Your task to perform on an android device: Go to Maps Image 0: 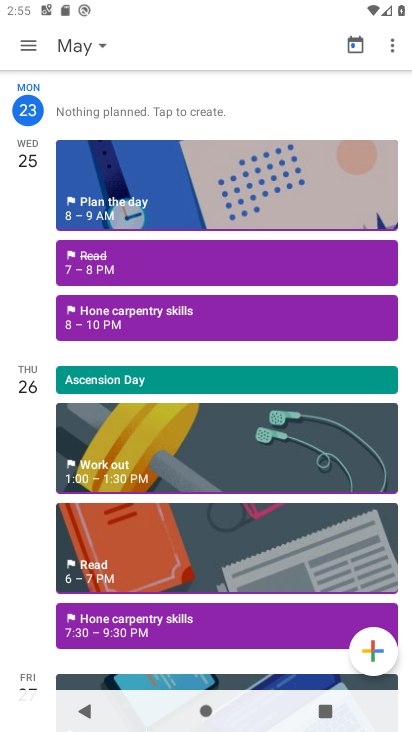
Step 0: press home button
Your task to perform on an android device: Go to Maps Image 1: 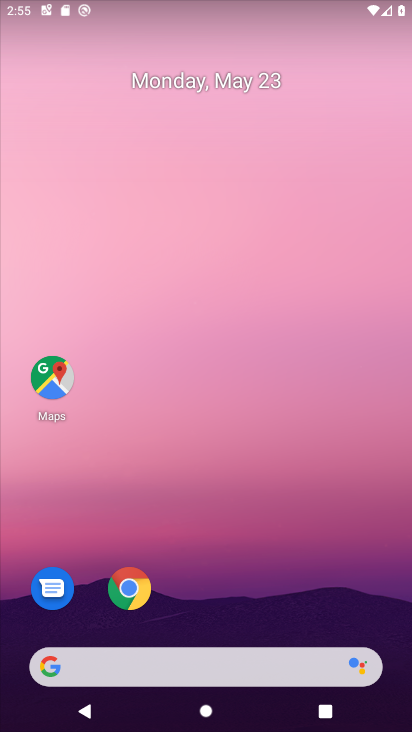
Step 1: drag from (220, 612) to (200, 0)
Your task to perform on an android device: Go to Maps Image 2: 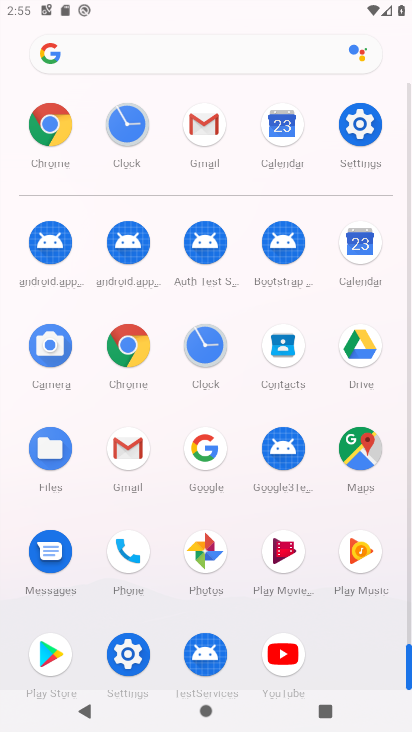
Step 2: click (348, 454)
Your task to perform on an android device: Go to Maps Image 3: 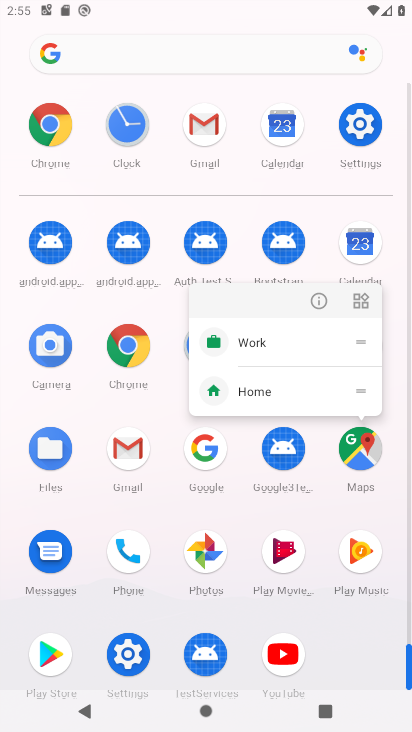
Step 3: click (310, 304)
Your task to perform on an android device: Go to Maps Image 4: 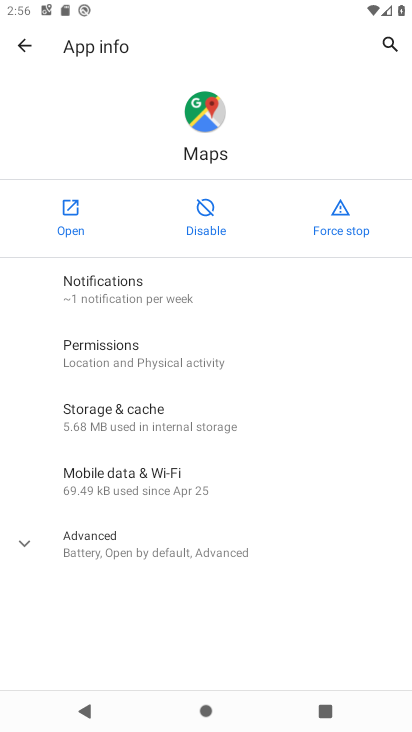
Step 4: click (65, 216)
Your task to perform on an android device: Go to Maps Image 5: 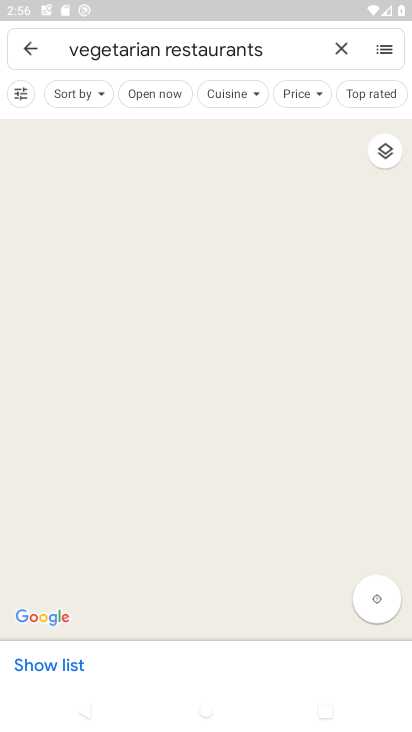
Step 5: task complete